Your task to perform on an android device: Search for Mexican restaurants on Maps Image 0: 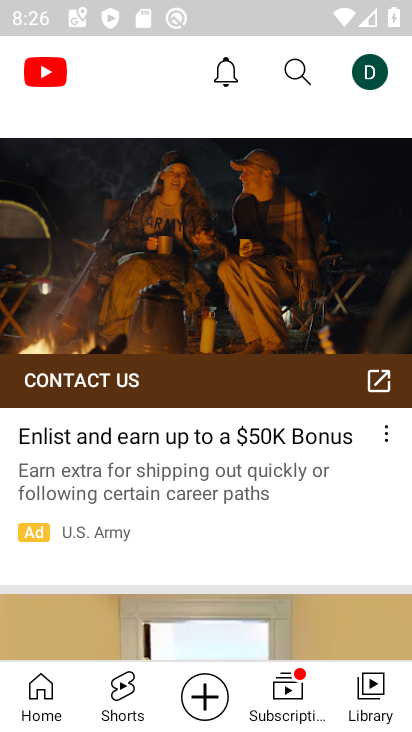
Step 0: press back button
Your task to perform on an android device: Search for Mexican restaurants on Maps Image 1: 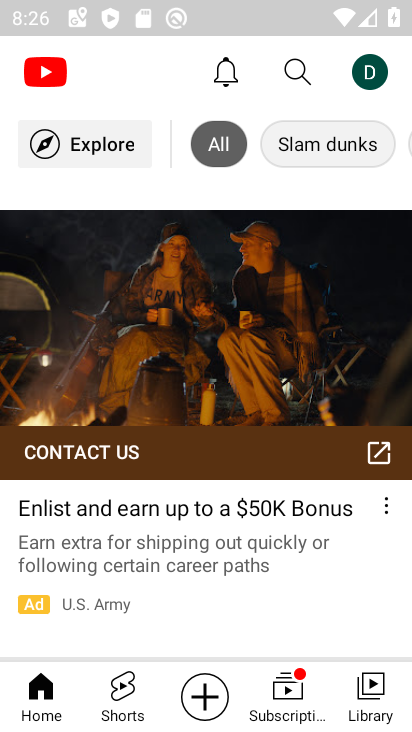
Step 1: press back button
Your task to perform on an android device: Search for Mexican restaurants on Maps Image 2: 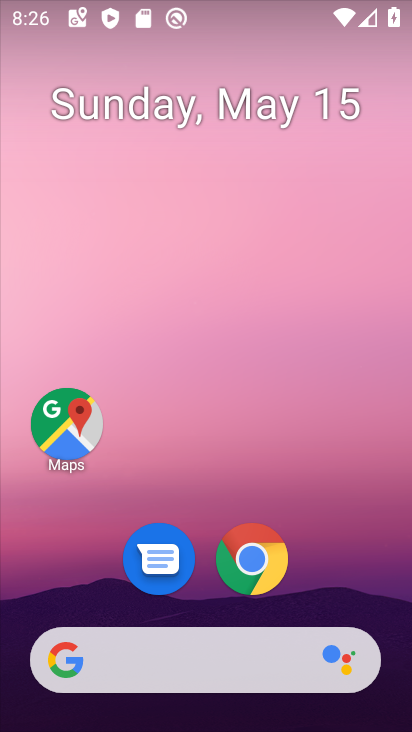
Step 2: click (78, 418)
Your task to perform on an android device: Search for Mexican restaurants on Maps Image 3: 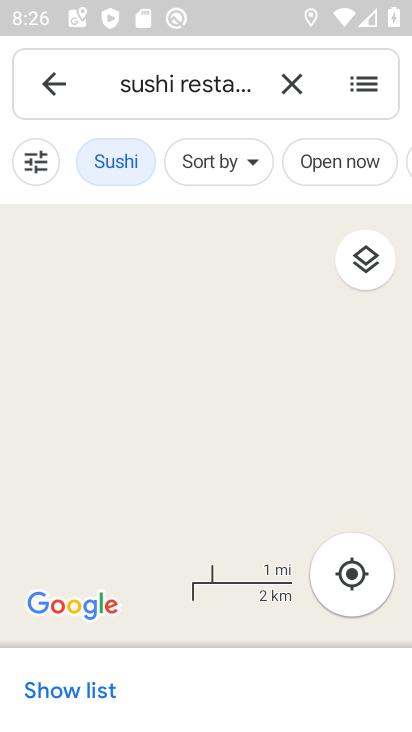
Step 3: click (285, 77)
Your task to perform on an android device: Search for Mexican restaurants on Maps Image 4: 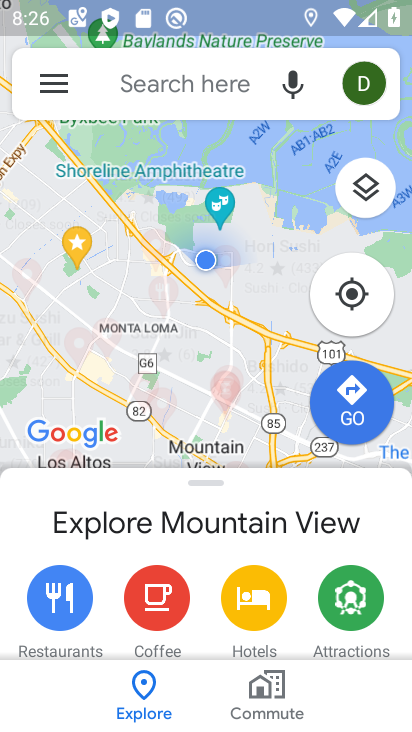
Step 4: click (194, 87)
Your task to perform on an android device: Search for Mexican restaurants on Maps Image 5: 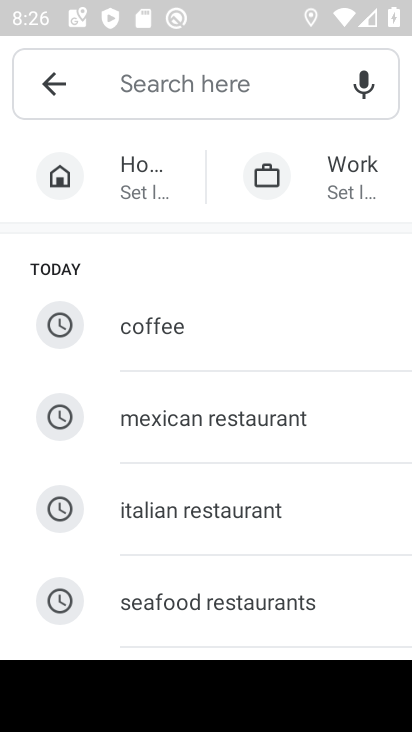
Step 5: type "mexica"
Your task to perform on an android device: Search for Mexican restaurants on Maps Image 6: 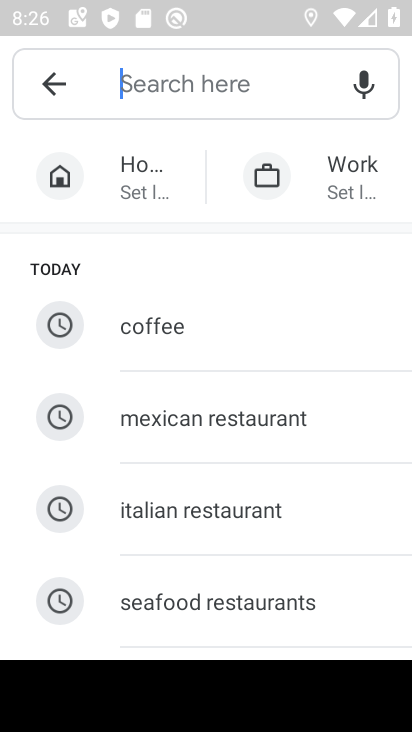
Step 6: click (309, 402)
Your task to perform on an android device: Search for Mexican restaurants on Maps Image 7: 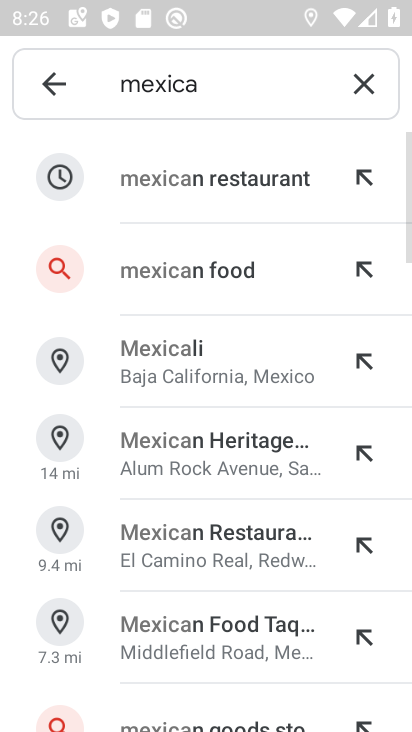
Step 7: click (233, 166)
Your task to perform on an android device: Search for Mexican restaurants on Maps Image 8: 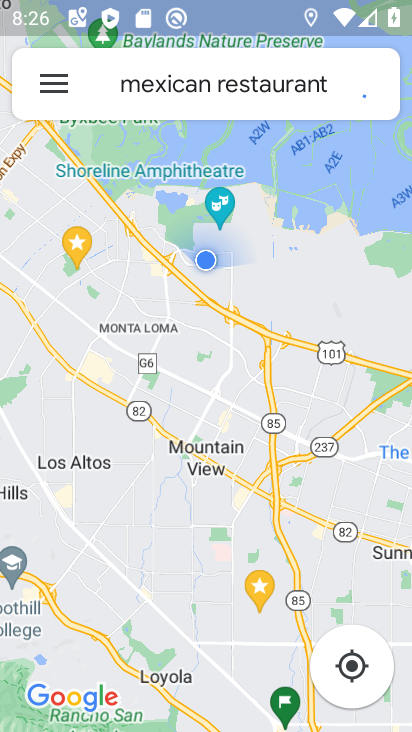
Step 8: task complete